Your task to perform on an android device: Go to Wikipedia Image 0: 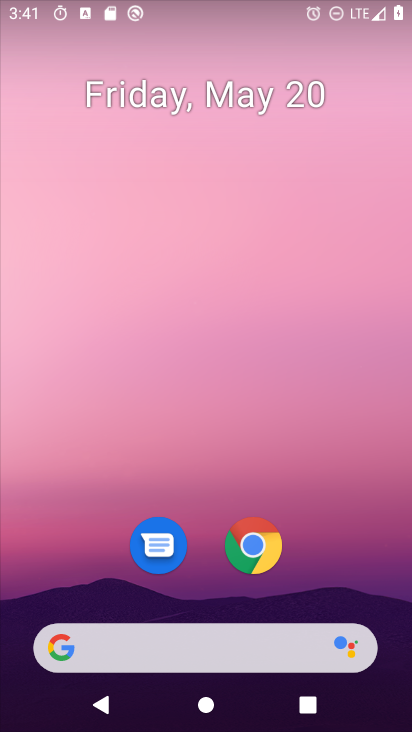
Step 0: drag from (333, 614) to (319, 0)
Your task to perform on an android device: Go to Wikipedia Image 1: 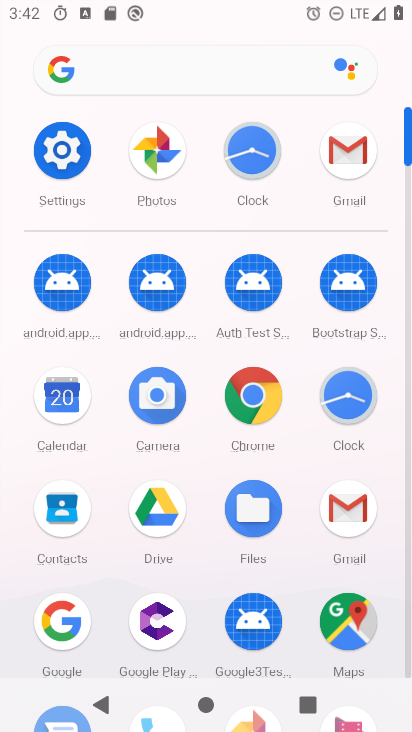
Step 1: click (247, 382)
Your task to perform on an android device: Go to Wikipedia Image 2: 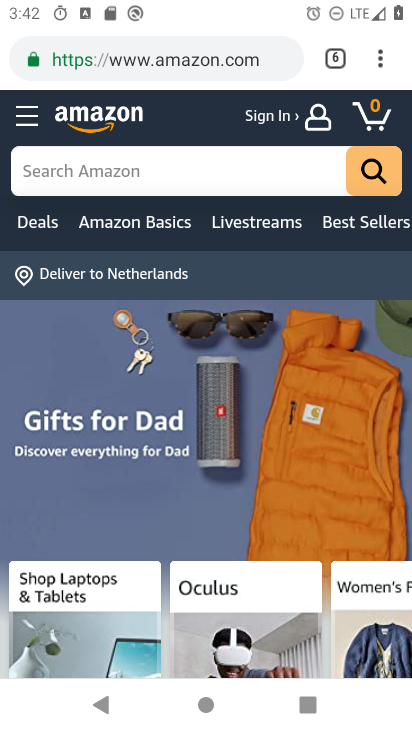
Step 2: click (382, 62)
Your task to perform on an android device: Go to Wikipedia Image 3: 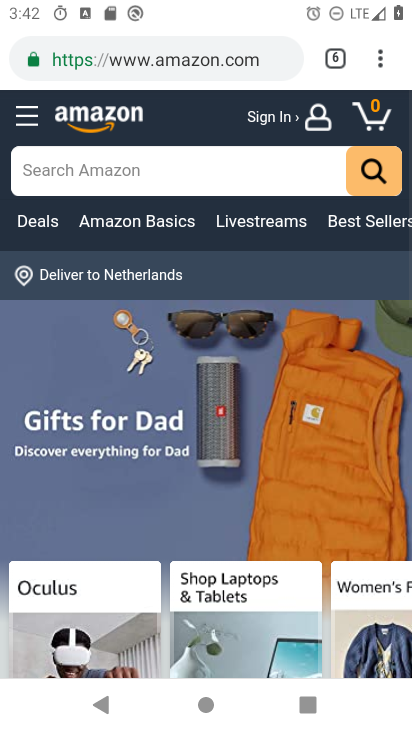
Step 3: drag from (384, 58) to (21, 278)
Your task to perform on an android device: Go to Wikipedia Image 4: 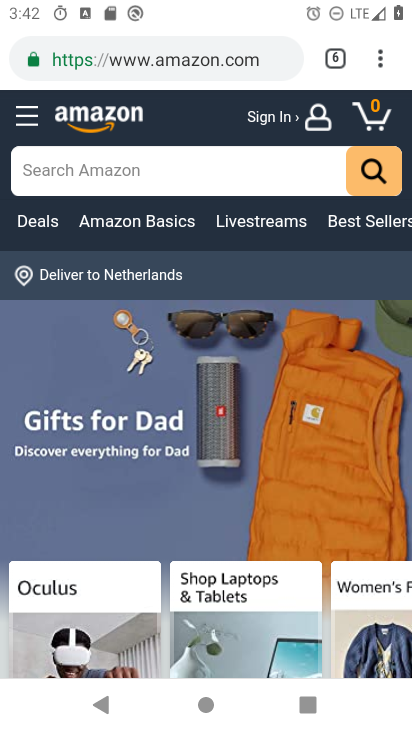
Step 4: drag from (384, 49) to (289, 112)
Your task to perform on an android device: Go to Wikipedia Image 5: 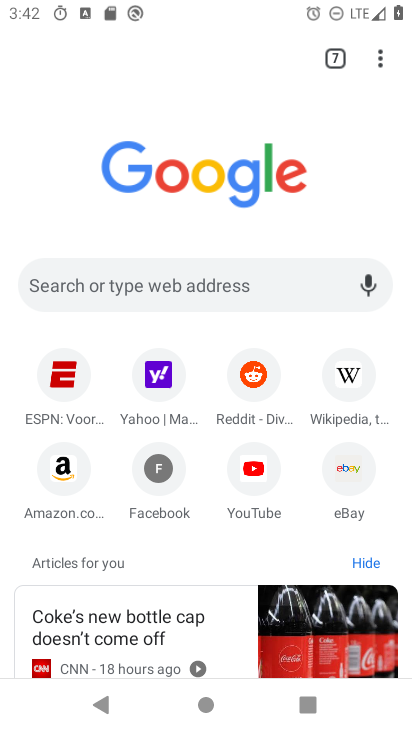
Step 5: click (347, 358)
Your task to perform on an android device: Go to Wikipedia Image 6: 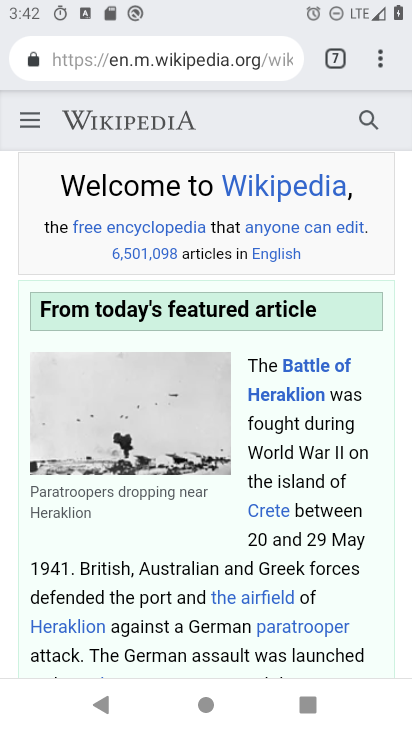
Step 6: task complete